Your task to perform on an android device: Go to Google Image 0: 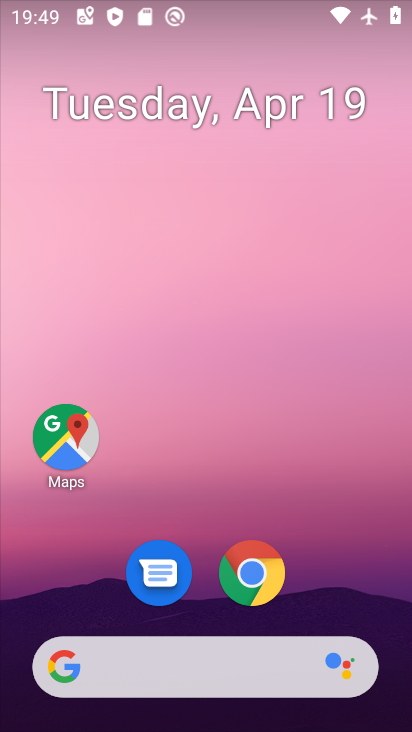
Step 0: drag from (370, 620) to (308, 197)
Your task to perform on an android device: Go to Google Image 1: 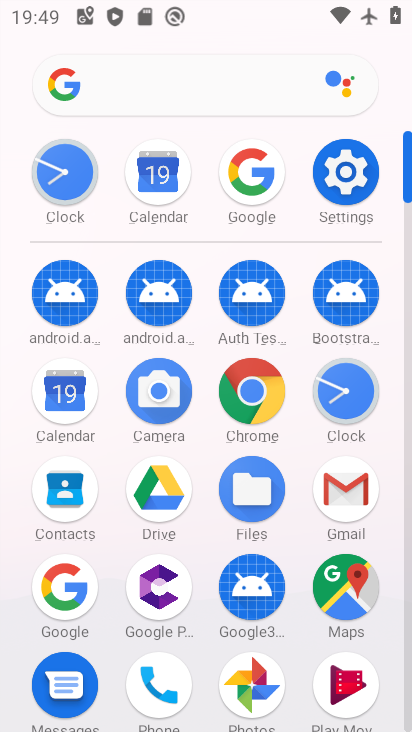
Step 1: click (69, 593)
Your task to perform on an android device: Go to Google Image 2: 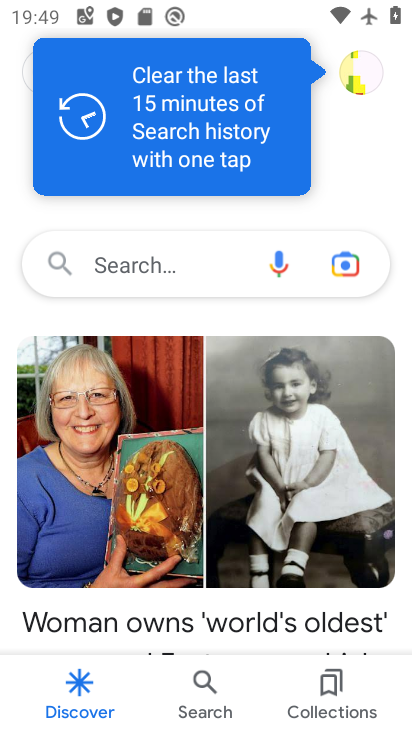
Step 2: task complete